Your task to perform on an android device: Is it going to rain today? Image 0: 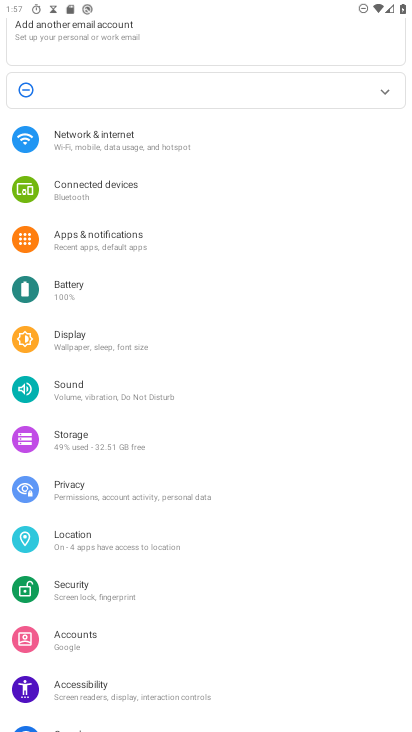
Step 0: press home button
Your task to perform on an android device: Is it going to rain today? Image 1: 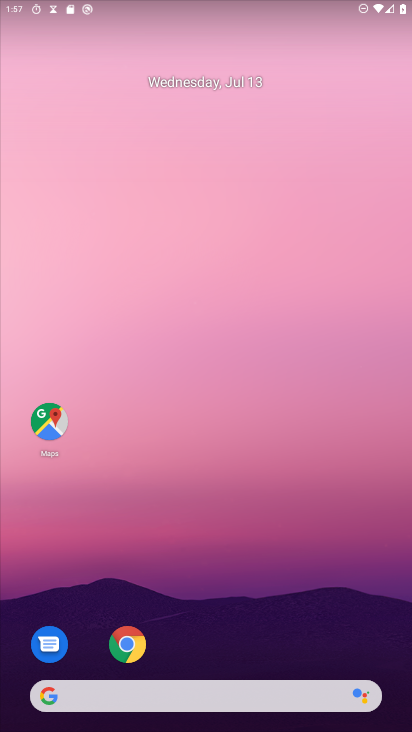
Step 1: click (94, 702)
Your task to perform on an android device: Is it going to rain today? Image 2: 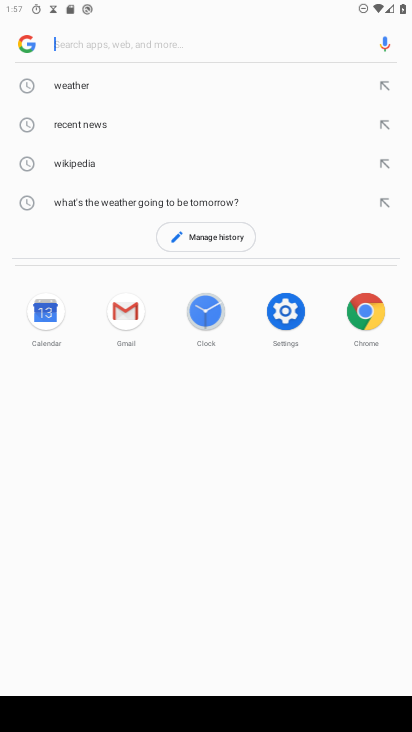
Step 2: type "Is it going to rain today?"
Your task to perform on an android device: Is it going to rain today? Image 3: 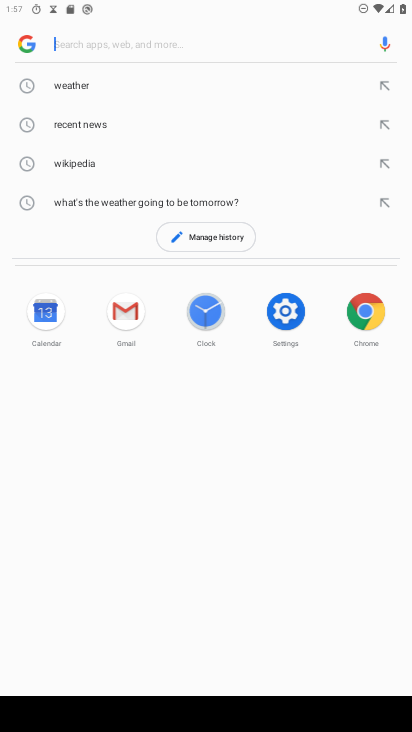
Step 3: click (89, 43)
Your task to perform on an android device: Is it going to rain today? Image 4: 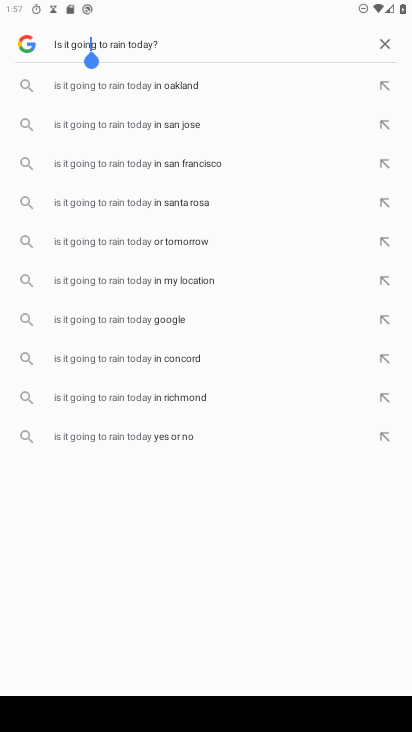
Step 4: press enter
Your task to perform on an android device: Is it going to rain today? Image 5: 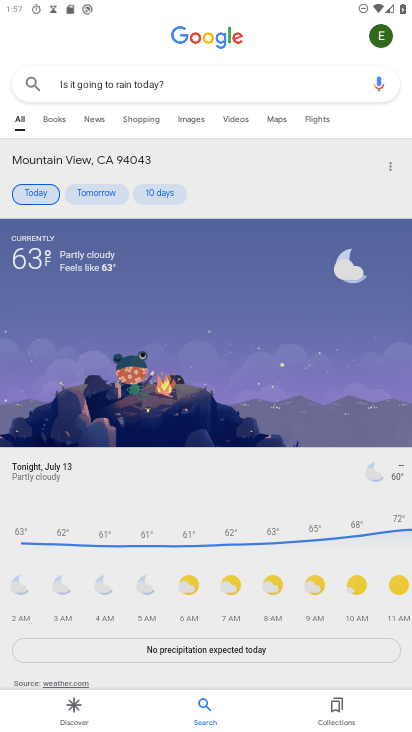
Step 5: task complete